Your task to perform on an android device: turn off location history Image 0: 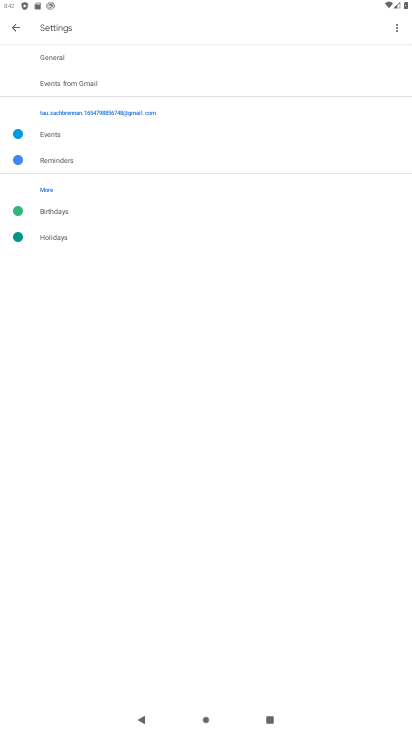
Step 0: press home button
Your task to perform on an android device: turn off location history Image 1: 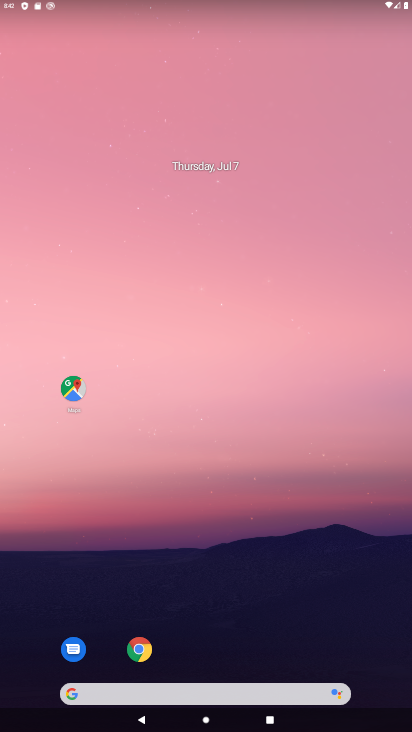
Step 1: drag from (222, 689) to (240, 24)
Your task to perform on an android device: turn off location history Image 2: 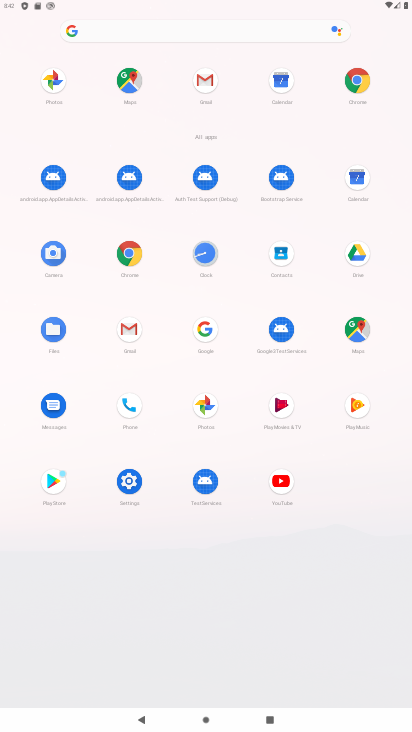
Step 2: click (136, 477)
Your task to perform on an android device: turn off location history Image 3: 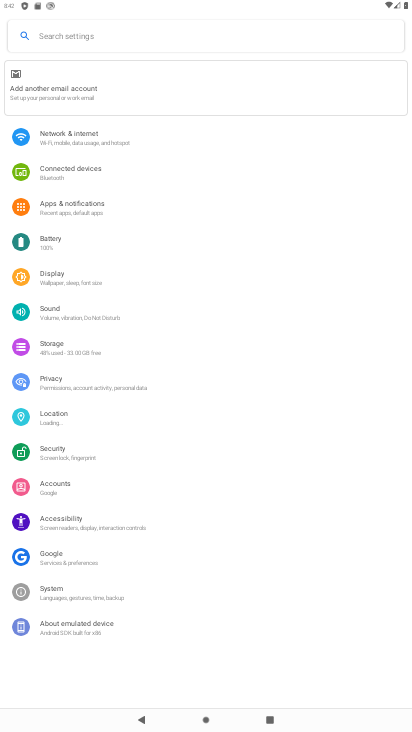
Step 3: click (62, 419)
Your task to perform on an android device: turn off location history Image 4: 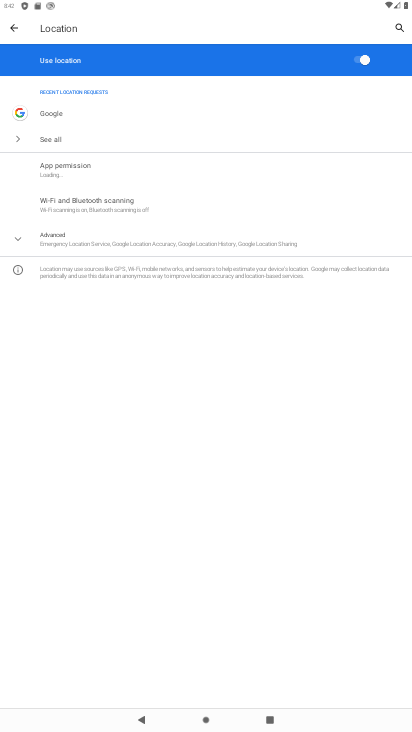
Step 4: click (91, 242)
Your task to perform on an android device: turn off location history Image 5: 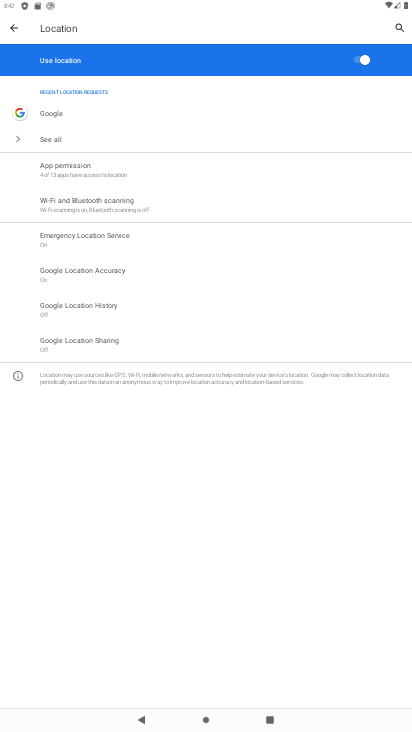
Step 5: click (99, 308)
Your task to perform on an android device: turn off location history Image 6: 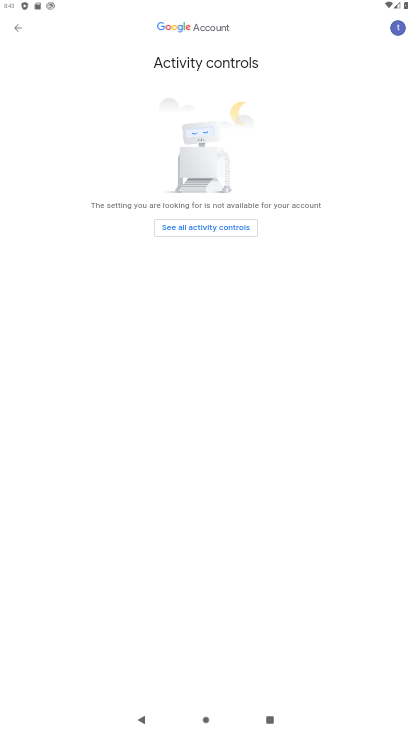
Step 6: press back button
Your task to perform on an android device: turn off location history Image 7: 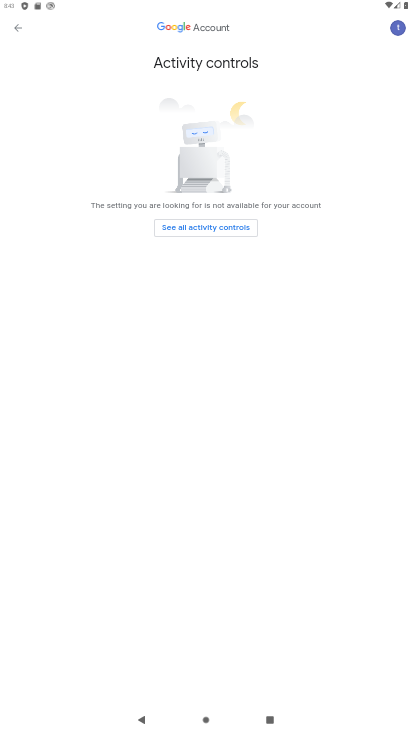
Step 7: press back button
Your task to perform on an android device: turn off location history Image 8: 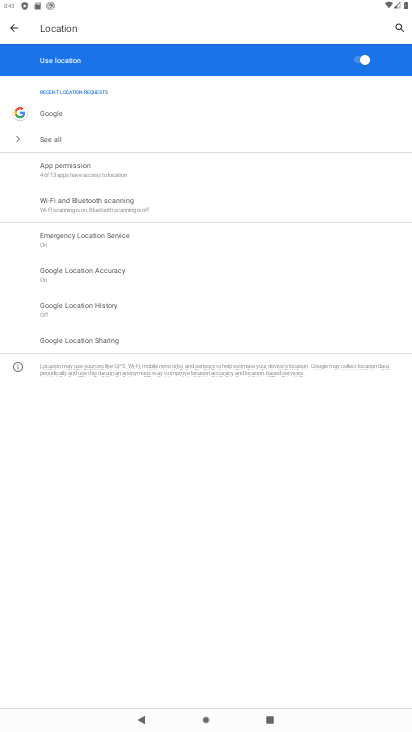
Step 8: click (100, 309)
Your task to perform on an android device: turn off location history Image 9: 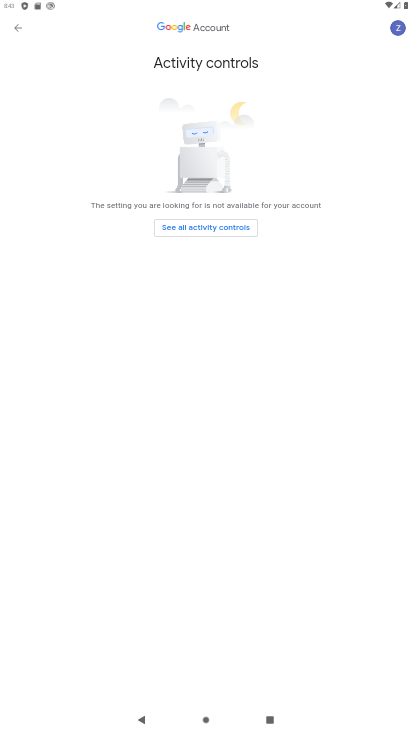
Step 9: task complete